Your task to perform on an android device: What's the weather today? Image 0: 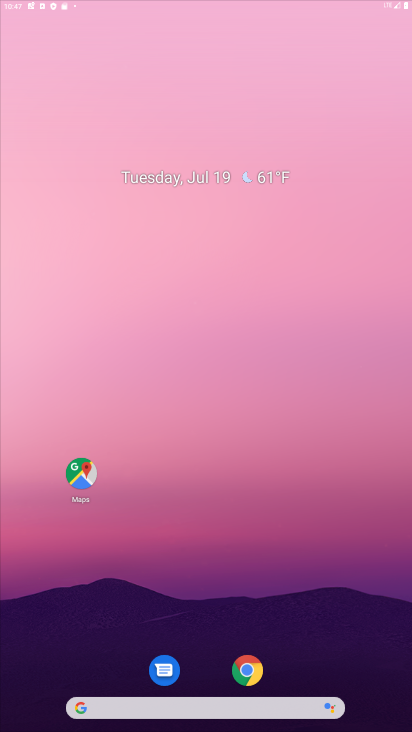
Step 0: click (202, 210)
Your task to perform on an android device: What's the weather today? Image 1: 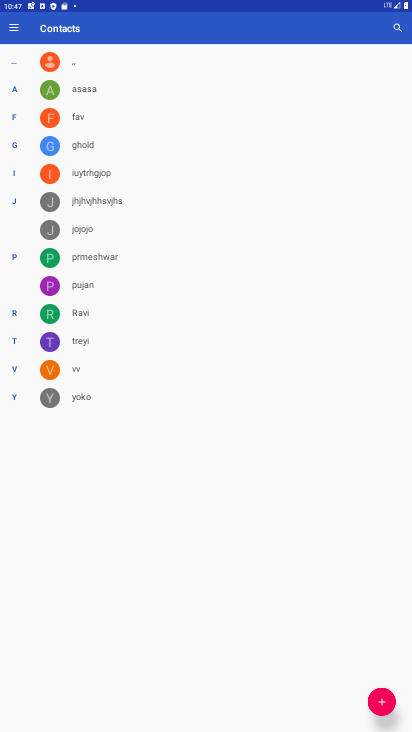
Step 1: press home button
Your task to perform on an android device: What's the weather today? Image 2: 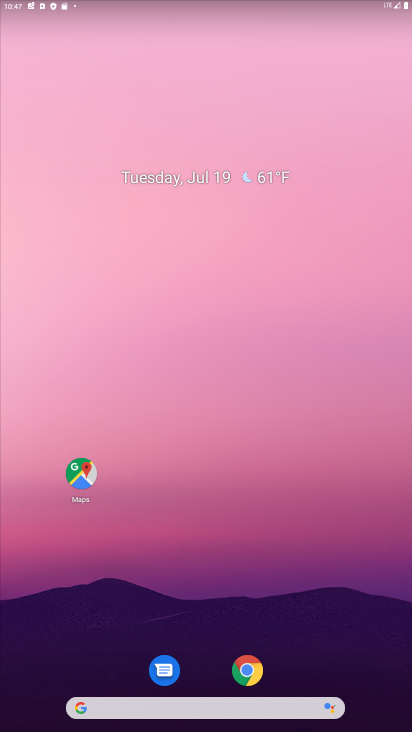
Step 2: click (202, 711)
Your task to perform on an android device: What's the weather today? Image 3: 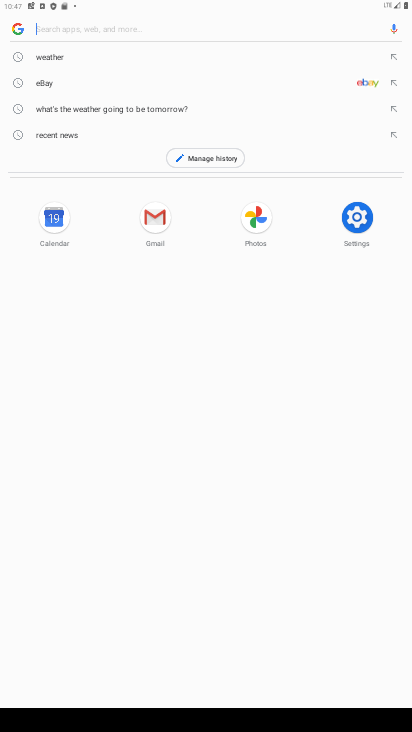
Step 3: click (107, 53)
Your task to perform on an android device: What's the weather today? Image 4: 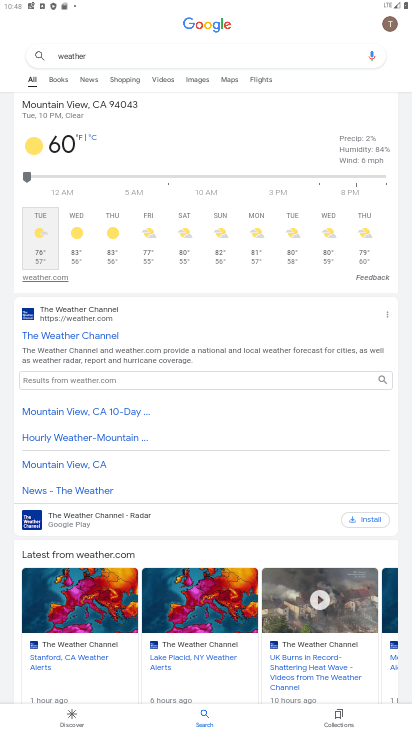
Step 4: task complete